Your task to perform on an android device: Go to notification settings Image 0: 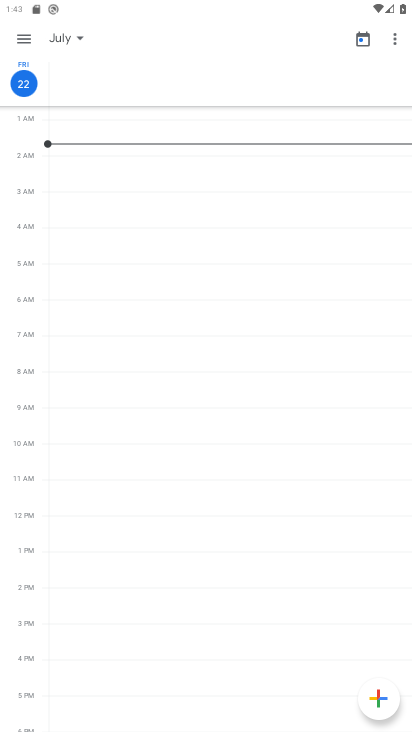
Step 0: press home button
Your task to perform on an android device: Go to notification settings Image 1: 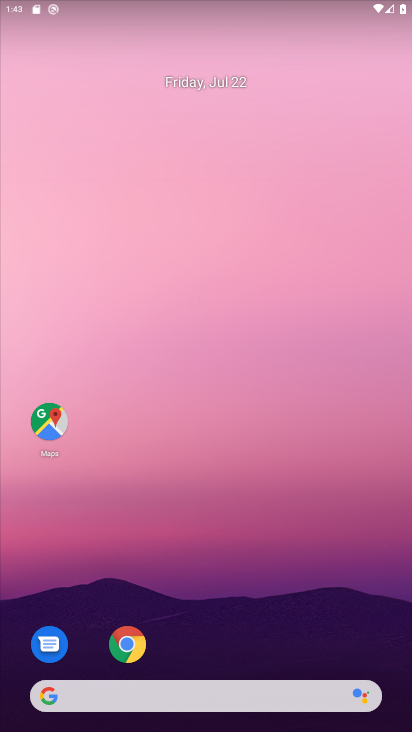
Step 1: drag from (236, 651) to (253, 164)
Your task to perform on an android device: Go to notification settings Image 2: 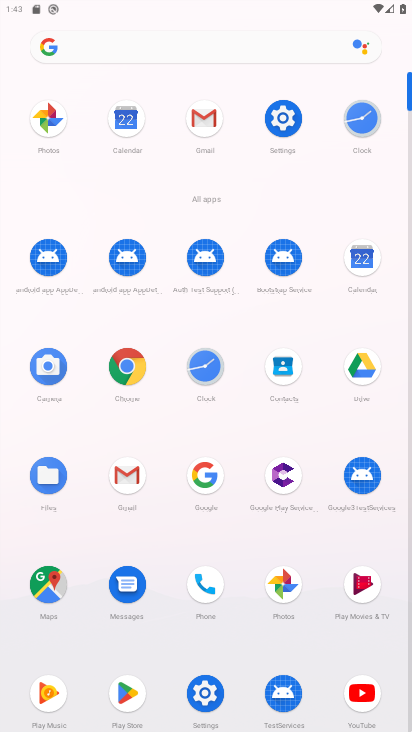
Step 2: click (294, 108)
Your task to perform on an android device: Go to notification settings Image 3: 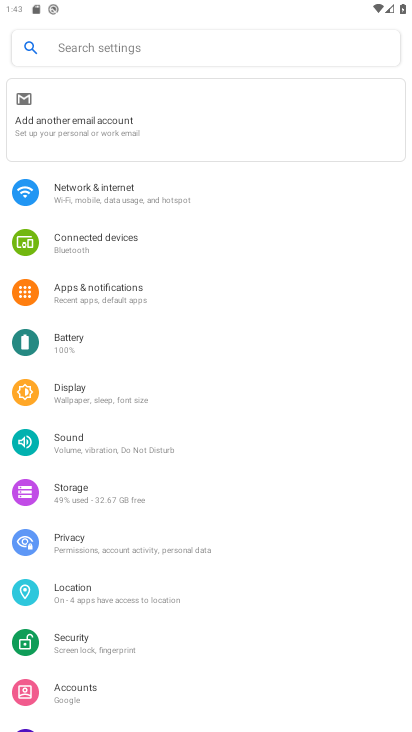
Step 3: click (127, 299)
Your task to perform on an android device: Go to notification settings Image 4: 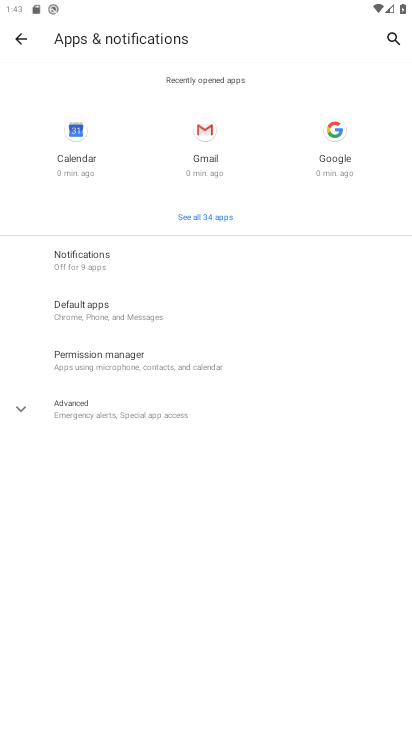
Step 4: click (109, 250)
Your task to perform on an android device: Go to notification settings Image 5: 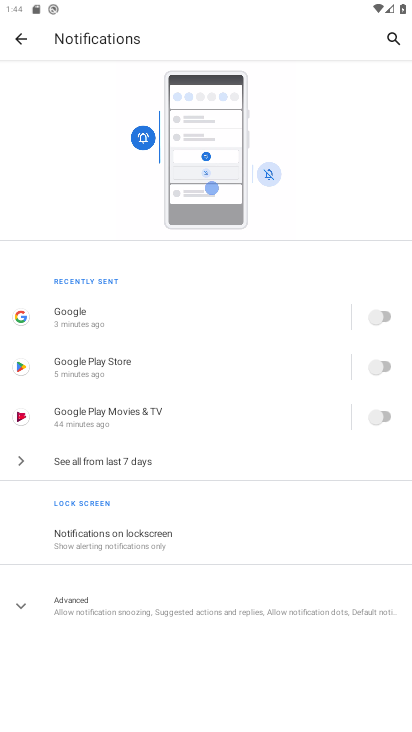
Step 5: task complete